Your task to perform on an android device: open sync settings in chrome Image 0: 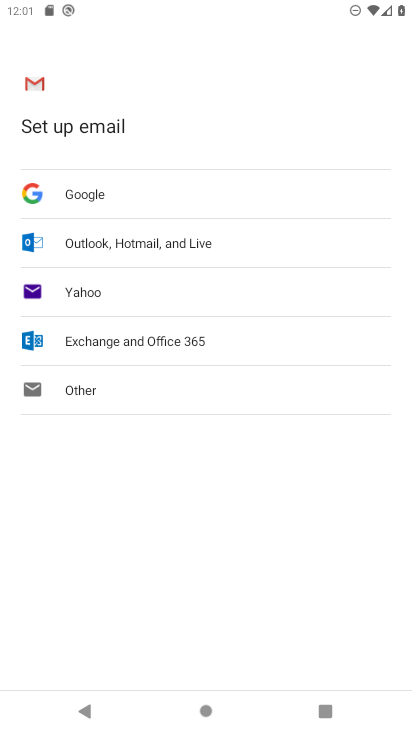
Step 0: press home button
Your task to perform on an android device: open sync settings in chrome Image 1: 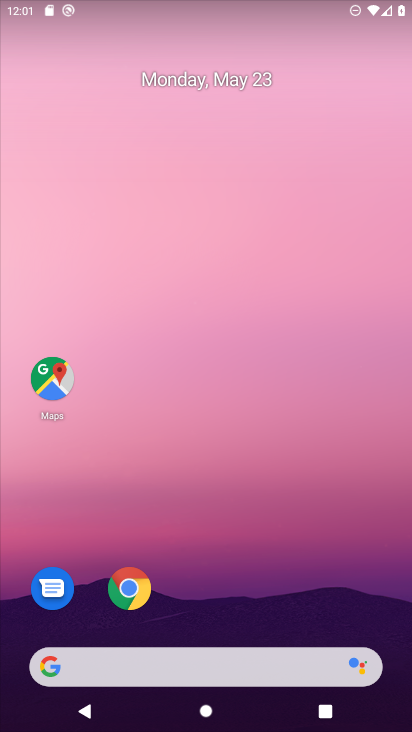
Step 1: drag from (249, 683) to (306, 104)
Your task to perform on an android device: open sync settings in chrome Image 2: 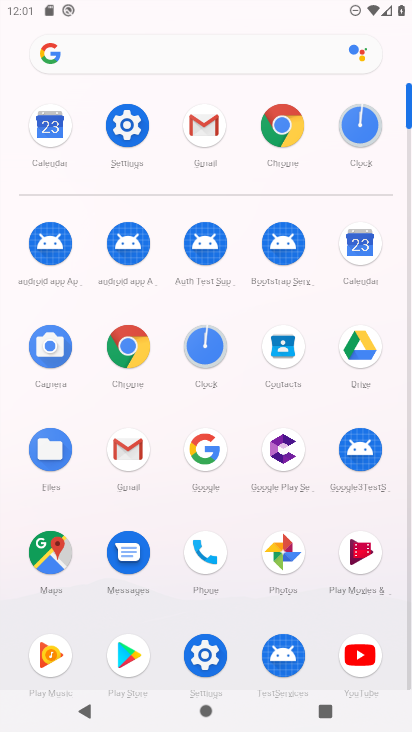
Step 2: click (127, 361)
Your task to perform on an android device: open sync settings in chrome Image 3: 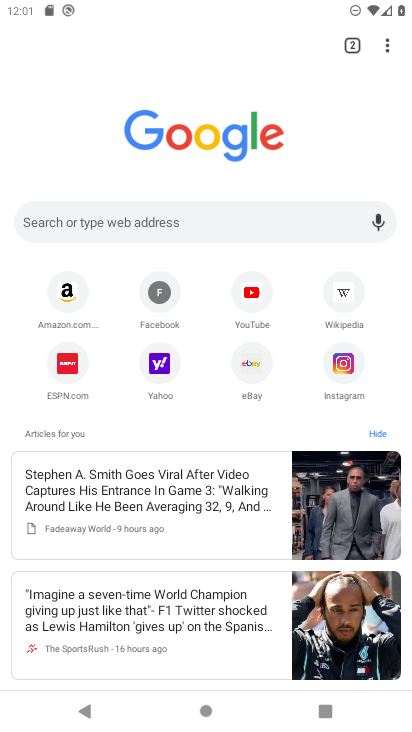
Step 3: click (385, 54)
Your task to perform on an android device: open sync settings in chrome Image 4: 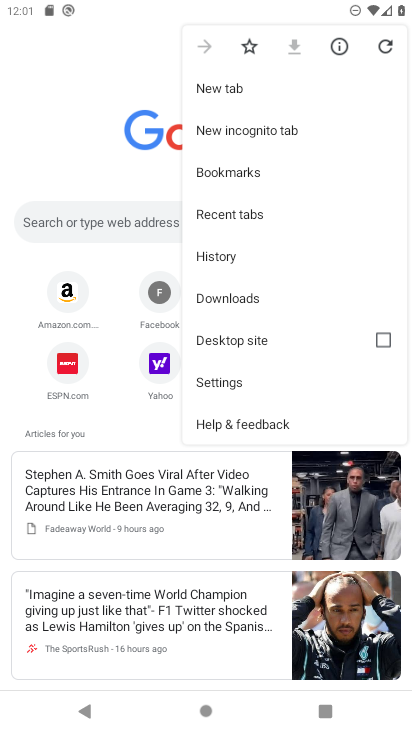
Step 4: click (243, 383)
Your task to perform on an android device: open sync settings in chrome Image 5: 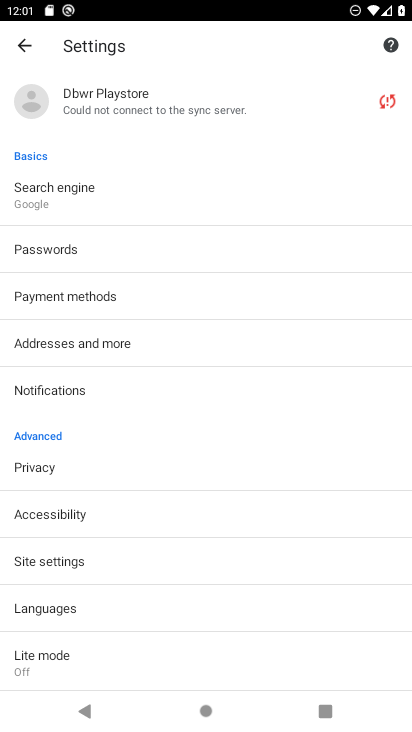
Step 5: drag from (185, 619) to (185, 492)
Your task to perform on an android device: open sync settings in chrome Image 6: 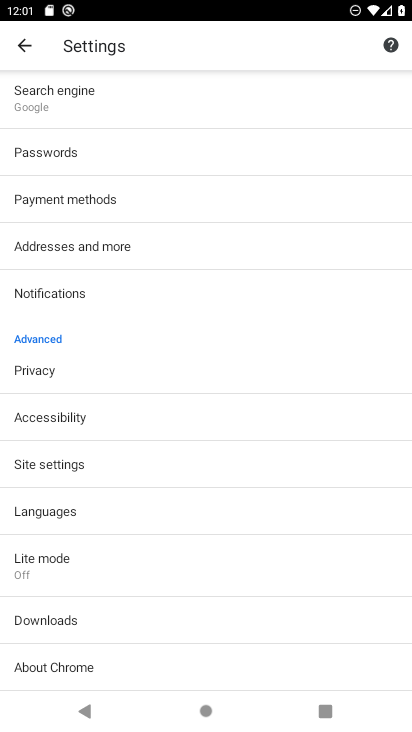
Step 6: click (41, 472)
Your task to perform on an android device: open sync settings in chrome Image 7: 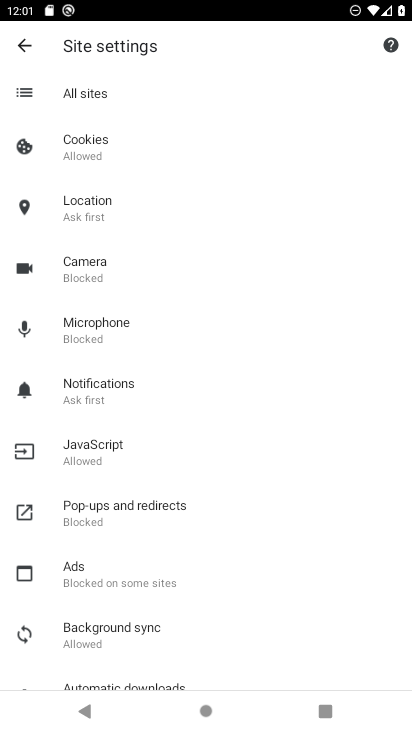
Step 7: click (166, 623)
Your task to perform on an android device: open sync settings in chrome Image 8: 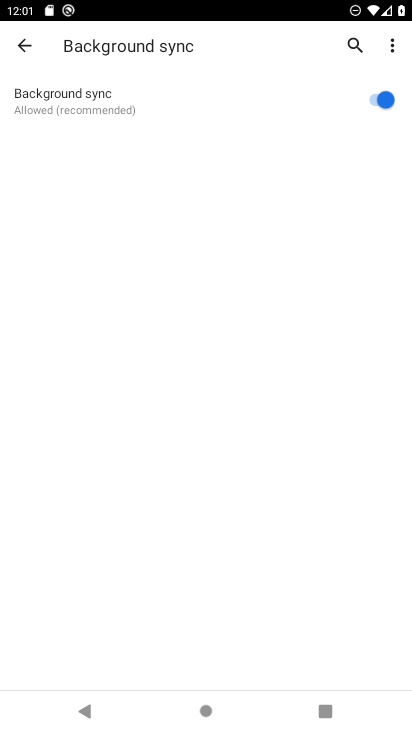
Step 8: task complete